Your task to perform on an android device: choose inbox layout in the gmail app Image 0: 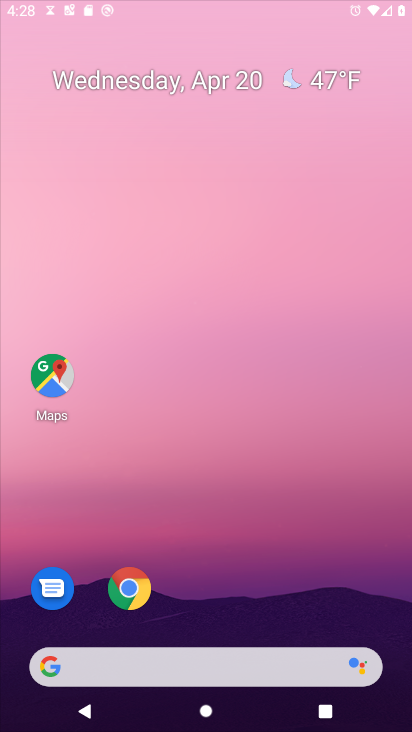
Step 0: click (314, 40)
Your task to perform on an android device: choose inbox layout in the gmail app Image 1: 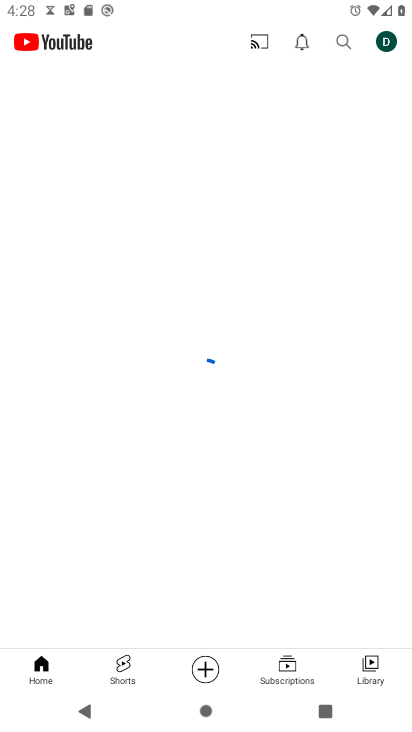
Step 1: press home button
Your task to perform on an android device: choose inbox layout in the gmail app Image 2: 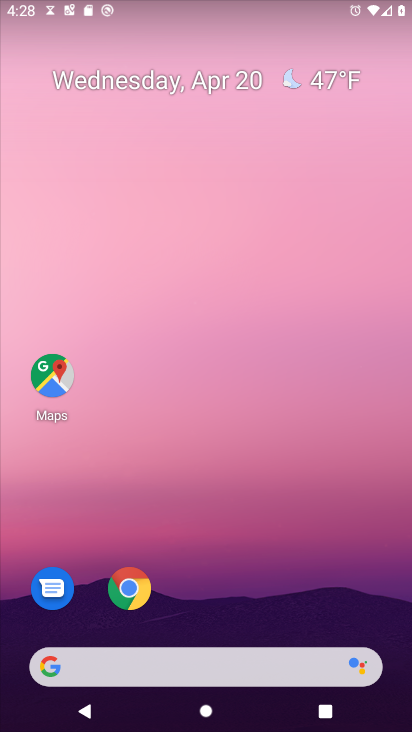
Step 2: drag from (294, 631) to (306, 17)
Your task to perform on an android device: choose inbox layout in the gmail app Image 3: 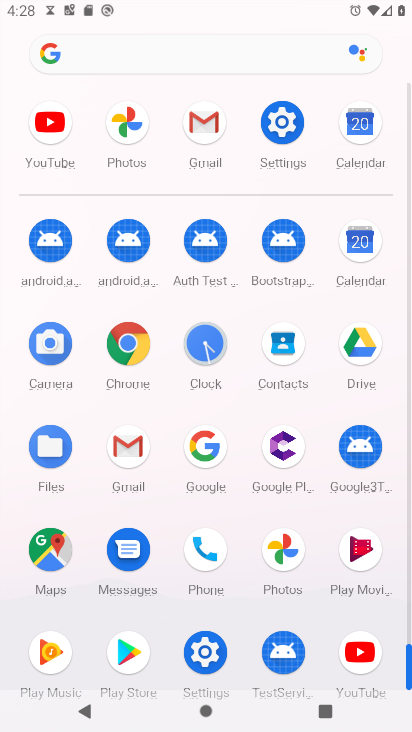
Step 3: click (128, 455)
Your task to perform on an android device: choose inbox layout in the gmail app Image 4: 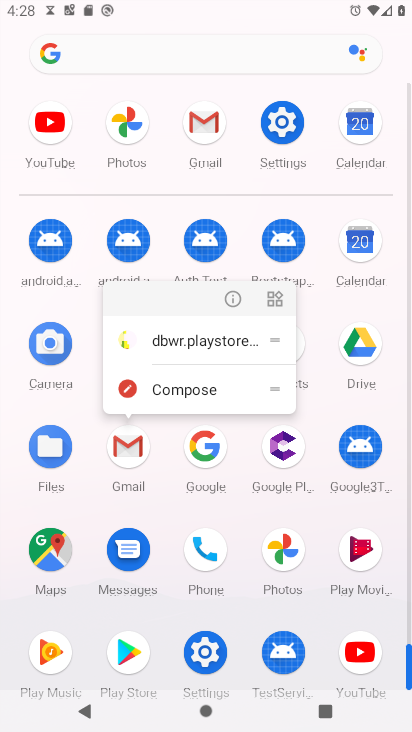
Step 4: click (141, 421)
Your task to perform on an android device: choose inbox layout in the gmail app Image 5: 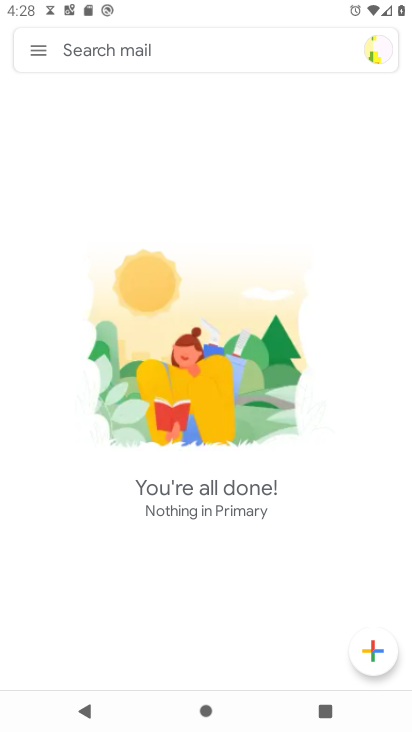
Step 5: click (47, 51)
Your task to perform on an android device: choose inbox layout in the gmail app Image 6: 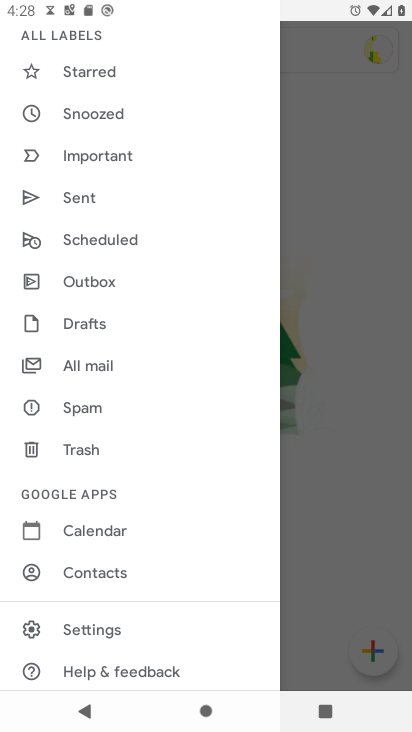
Step 6: click (104, 614)
Your task to perform on an android device: choose inbox layout in the gmail app Image 7: 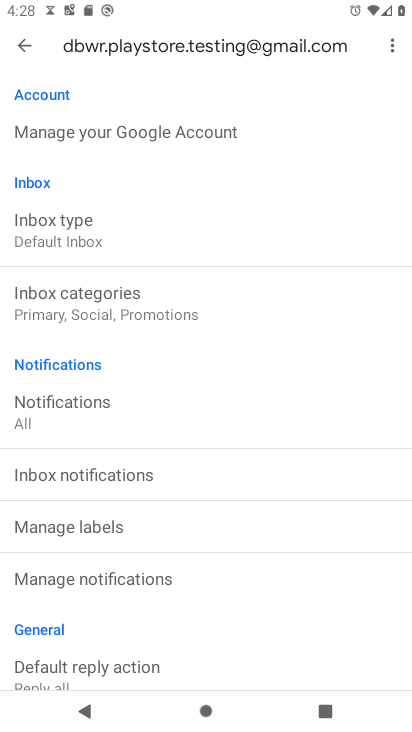
Step 7: click (117, 244)
Your task to perform on an android device: choose inbox layout in the gmail app Image 8: 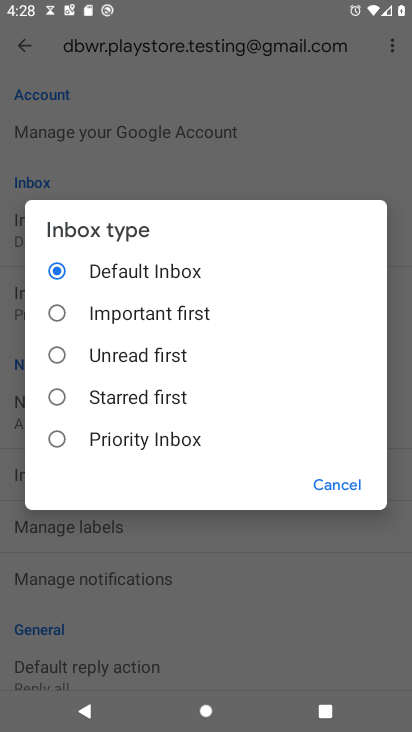
Step 8: click (139, 309)
Your task to perform on an android device: choose inbox layout in the gmail app Image 9: 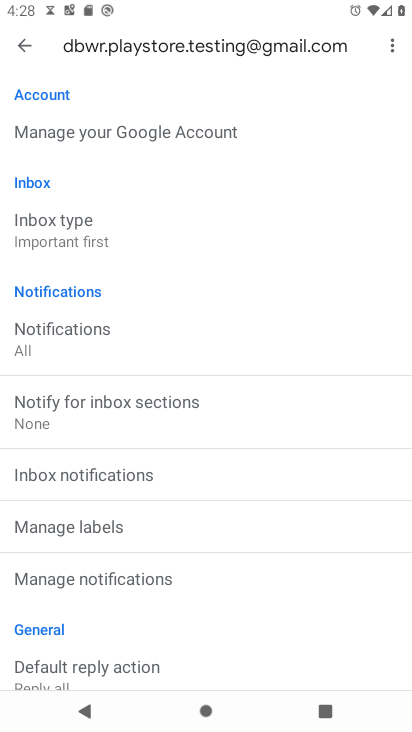
Step 9: task complete